Your task to perform on an android device: What's on my calendar today? Image 0: 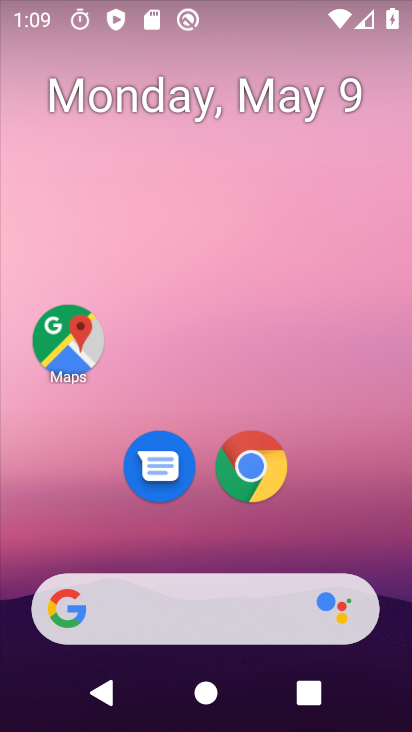
Step 0: drag from (322, 543) to (356, 208)
Your task to perform on an android device: What's on my calendar today? Image 1: 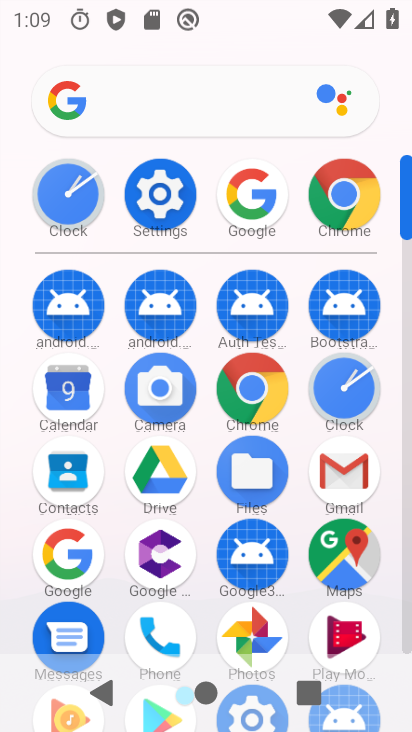
Step 1: click (77, 389)
Your task to perform on an android device: What's on my calendar today? Image 2: 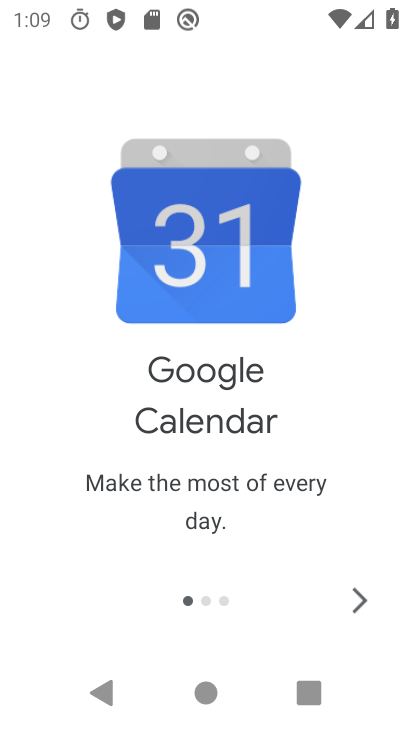
Step 2: click (354, 598)
Your task to perform on an android device: What's on my calendar today? Image 3: 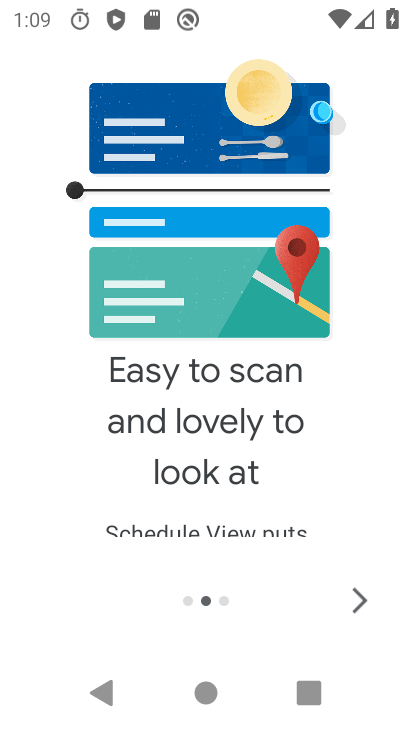
Step 3: click (370, 608)
Your task to perform on an android device: What's on my calendar today? Image 4: 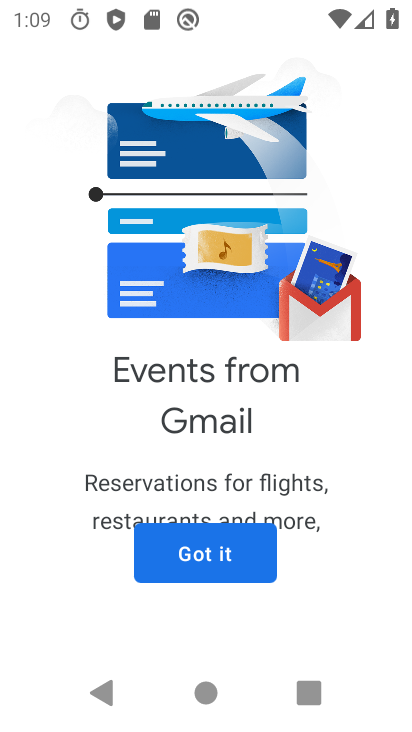
Step 4: click (255, 573)
Your task to perform on an android device: What's on my calendar today? Image 5: 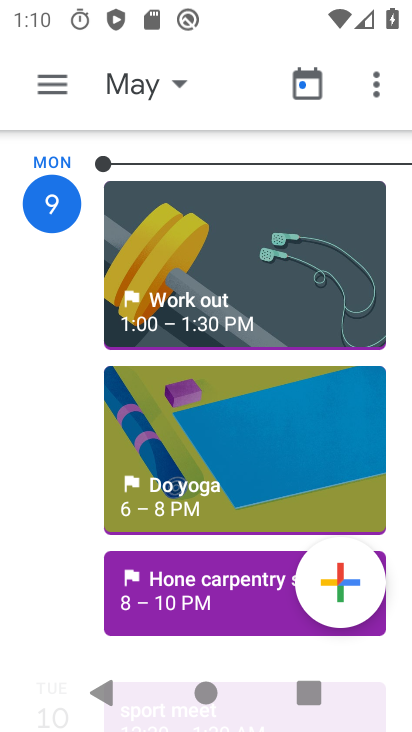
Step 5: task complete